Your task to perform on an android device: What's on my calendar tomorrow? Image 0: 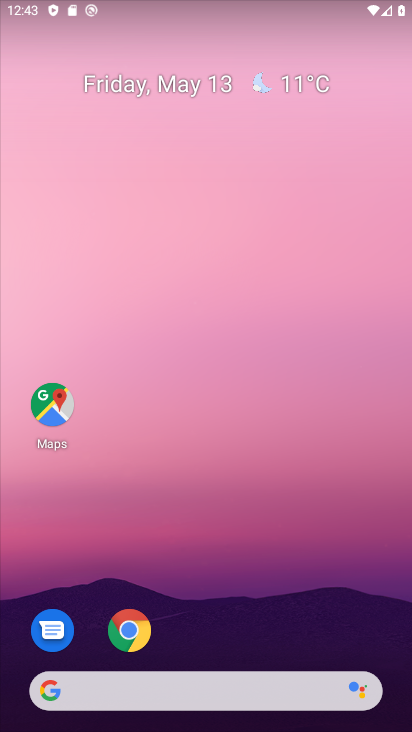
Step 0: drag from (251, 625) to (225, 214)
Your task to perform on an android device: What's on my calendar tomorrow? Image 1: 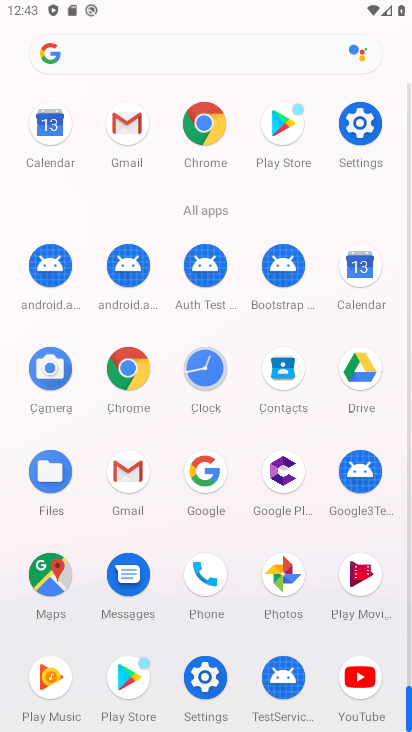
Step 1: click (365, 285)
Your task to perform on an android device: What's on my calendar tomorrow? Image 2: 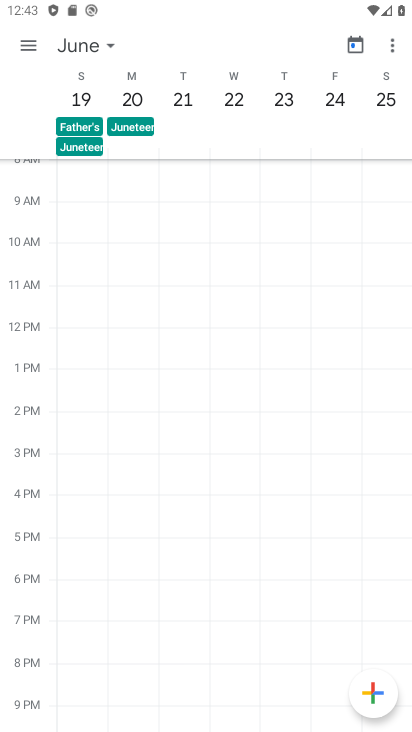
Step 2: click (95, 49)
Your task to perform on an android device: What's on my calendar tomorrow? Image 3: 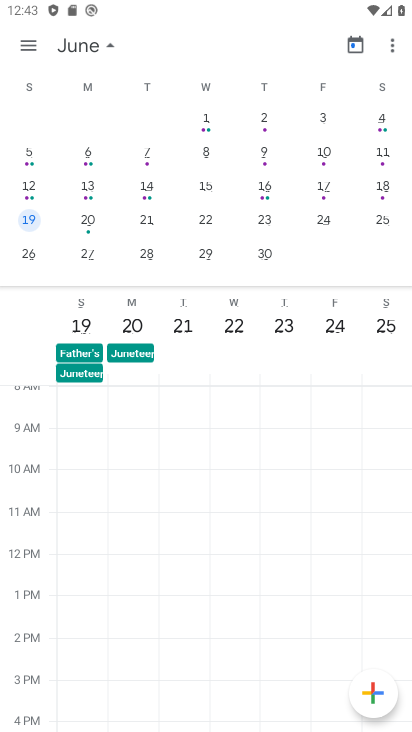
Step 3: drag from (91, 183) to (310, 179)
Your task to perform on an android device: What's on my calendar tomorrow? Image 4: 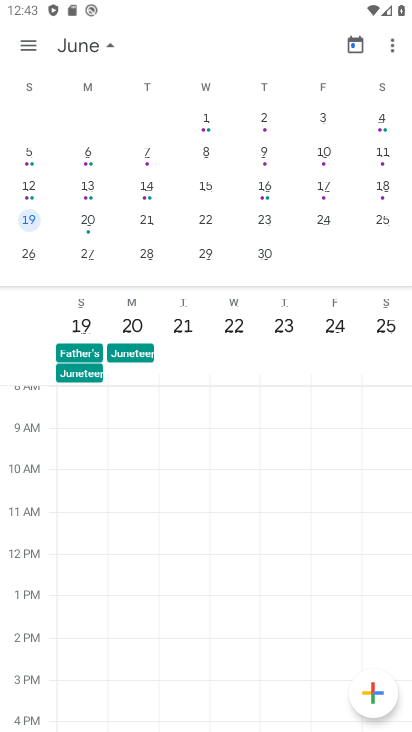
Step 4: drag from (114, 220) to (338, 188)
Your task to perform on an android device: What's on my calendar tomorrow? Image 5: 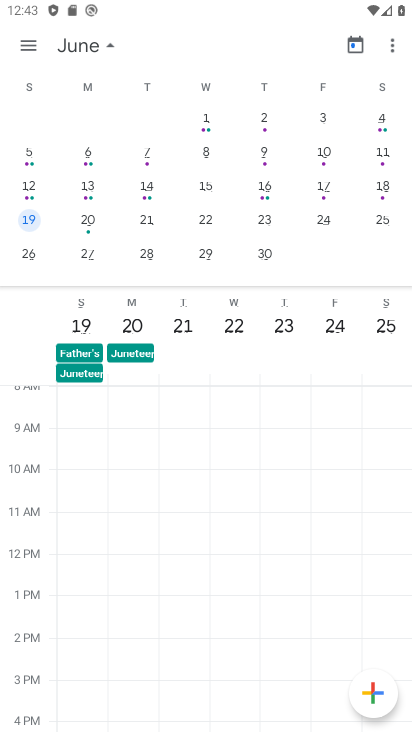
Step 5: drag from (119, 184) to (87, 62)
Your task to perform on an android device: What's on my calendar tomorrow? Image 6: 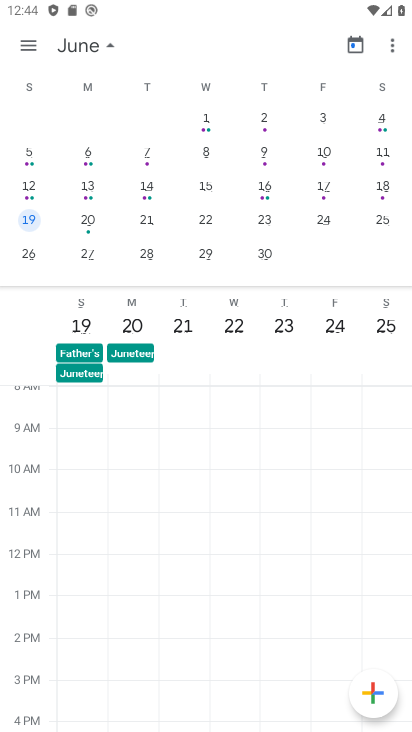
Step 6: drag from (99, 212) to (385, 196)
Your task to perform on an android device: What's on my calendar tomorrow? Image 7: 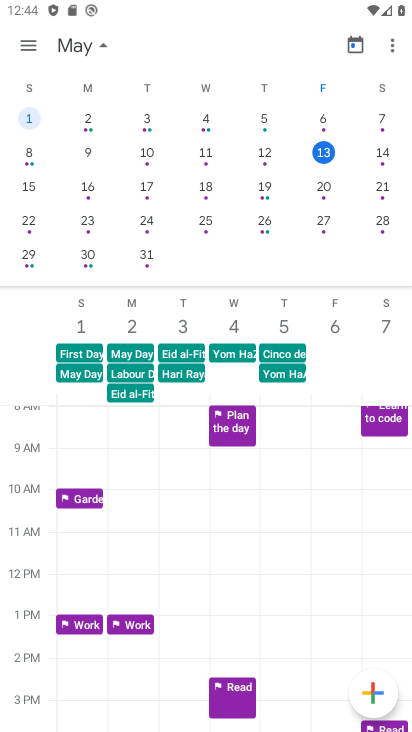
Step 7: click (314, 157)
Your task to perform on an android device: What's on my calendar tomorrow? Image 8: 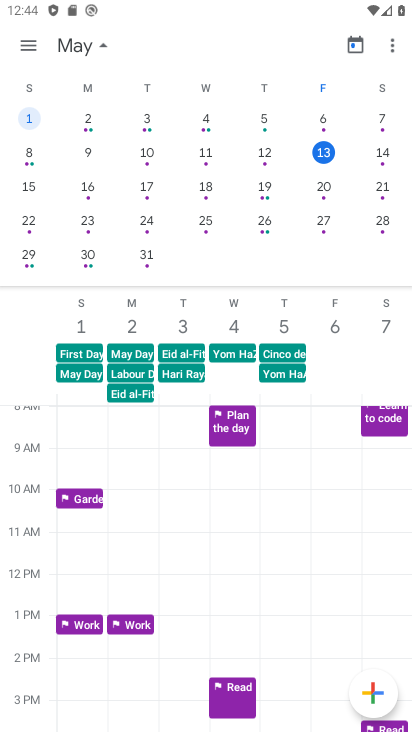
Step 8: click (316, 153)
Your task to perform on an android device: What's on my calendar tomorrow? Image 9: 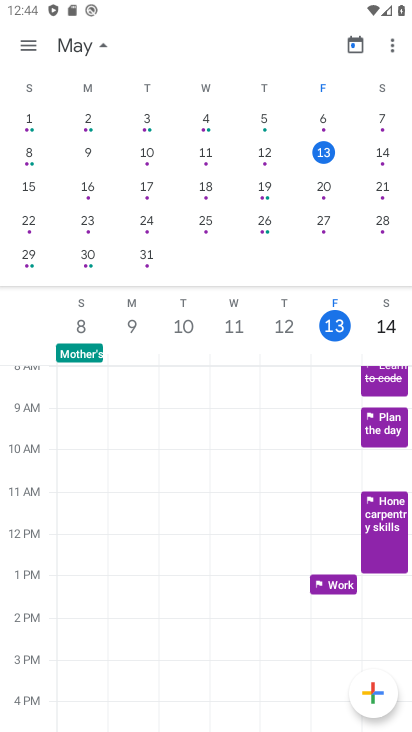
Step 9: click (333, 329)
Your task to perform on an android device: What's on my calendar tomorrow? Image 10: 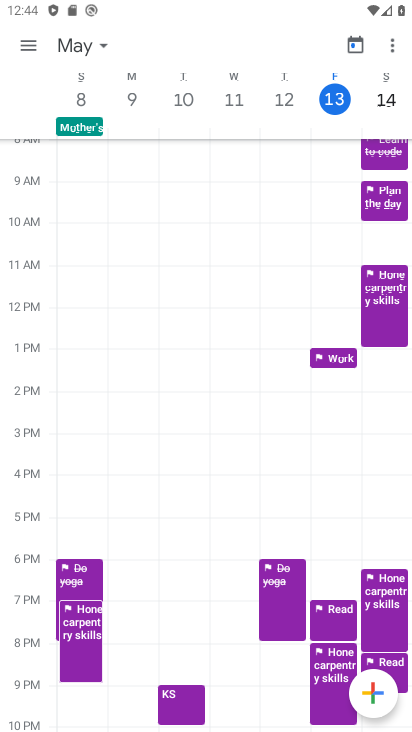
Step 10: task complete